Your task to perform on an android device: Search for vegetarian restaurants on Maps Image 0: 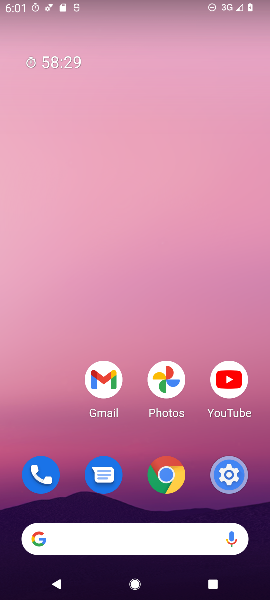
Step 0: press home button
Your task to perform on an android device: Search for vegetarian restaurants on Maps Image 1: 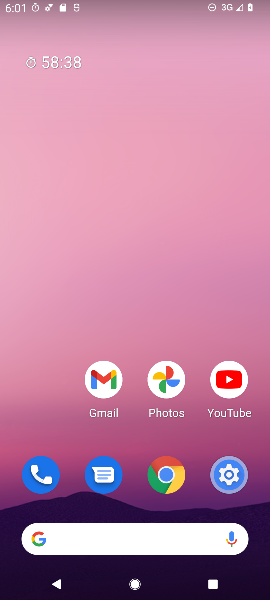
Step 1: drag from (42, 426) to (42, 128)
Your task to perform on an android device: Search for vegetarian restaurants on Maps Image 2: 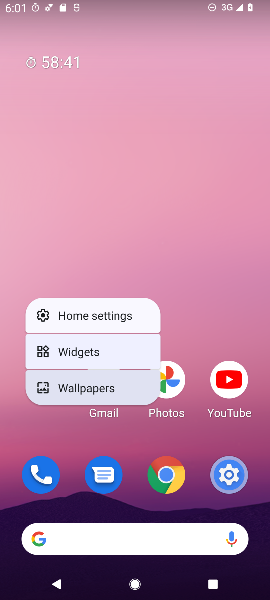
Step 2: click (194, 229)
Your task to perform on an android device: Search for vegetarian restaurants on Maps Image 3: 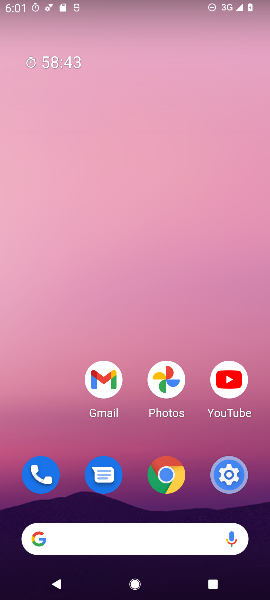
Step 3: drag from (52, 400) to (46, 86)
Your task to perform on an android device: Search for vegetarian restaurants on Maps Image 4: 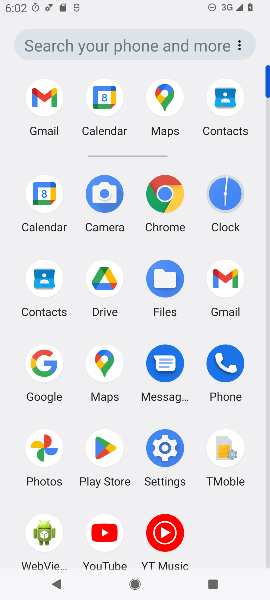
Step 4: click (108, 358)
Your task to perform on an android device: Search for vegetarian restaurants on Maps Image 5: 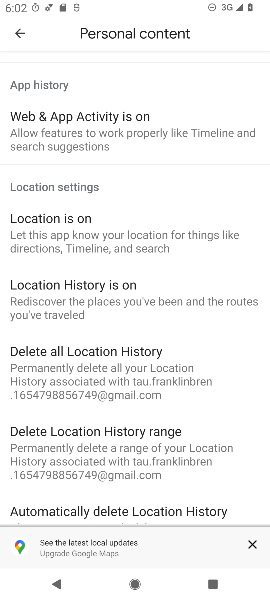
Step 5: press back button
Your task to perform on an android device: Search for vegetarian restaurants on Maps Image 6: 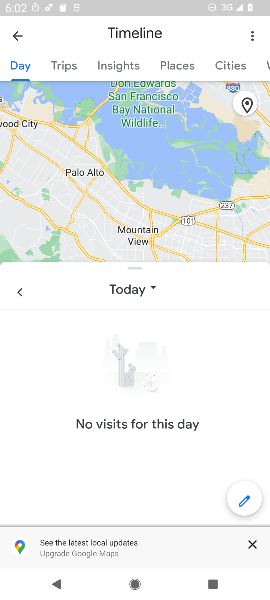
Step 6: press back button
Your task to perform on an android device: Search for vegetarian restaurants on Maps Image 7: 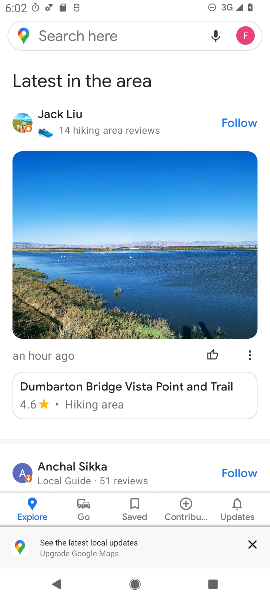
Step 7: click (116, 25)
Your task to perform on an android device: Search for vegetarian restaurants on Maps Image 8: 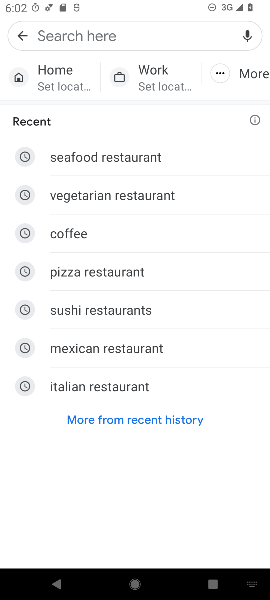
Step 8: type "vegetrain restaurants"
Your task to perform on an android device: Search for vegetarian restaurants on Maps Image 9: 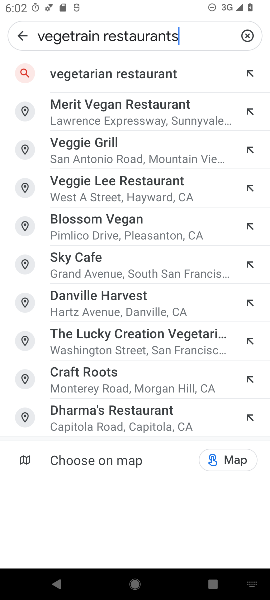
Step 9: click (197, 73)
Your task to perform on an android device: Search for vegetarian restaurants on Maps Image 10: 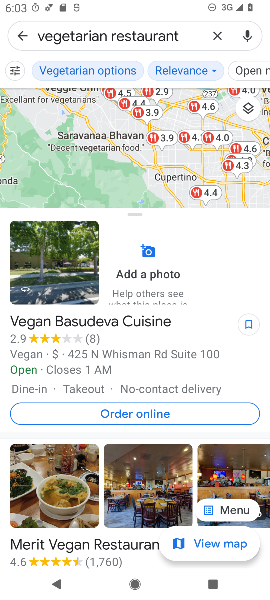
Step 10: task complete